Your task to perform on an android device: turn pop-ups off in chrome Image 0: 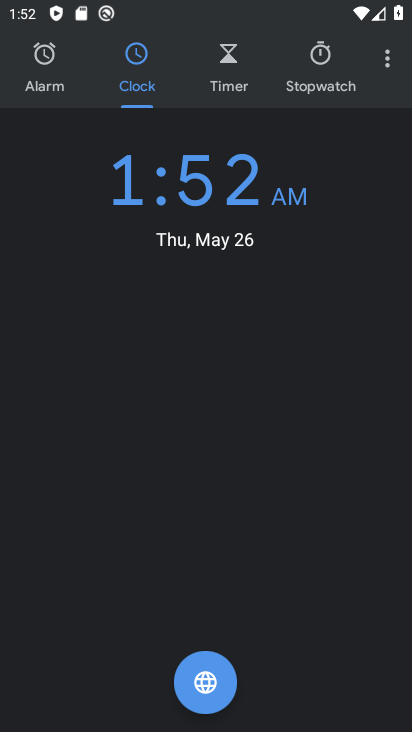
Step 0: press home button
Your task to perform on an android device: turn pop-ups off in chrome Image 1: 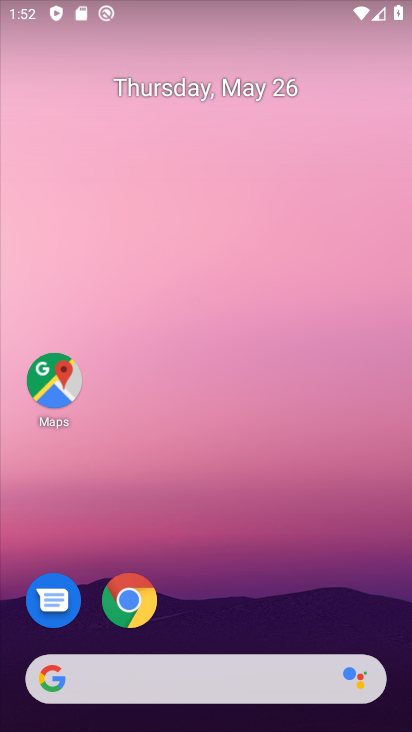
Step 1: drag from (280, 559) to (257, 83)
Your task to perform on an android device: turn pop-ups off in chrome Image 2: 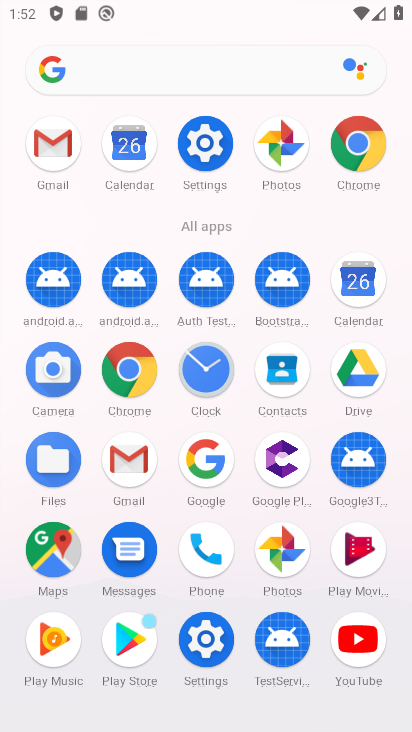
Step 2: drag from (9, 531) to (4, 225)
Your task to perform on an android device: turn pop-ups off in chrome Image 3: 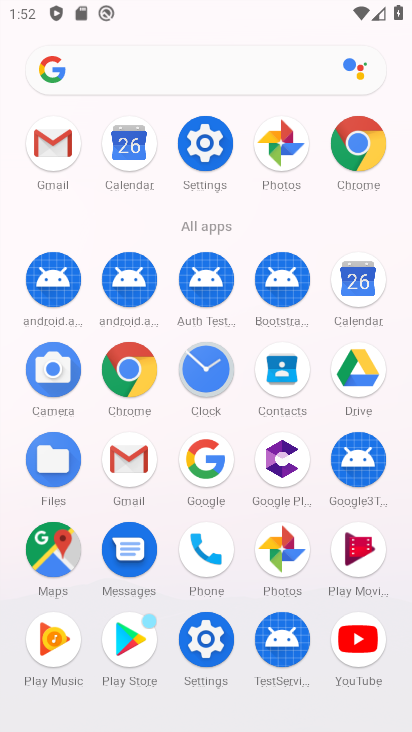
Step 3: click (131, 368)
Your task to perform on an android device: turn pop-ups off in chrome Image 4: 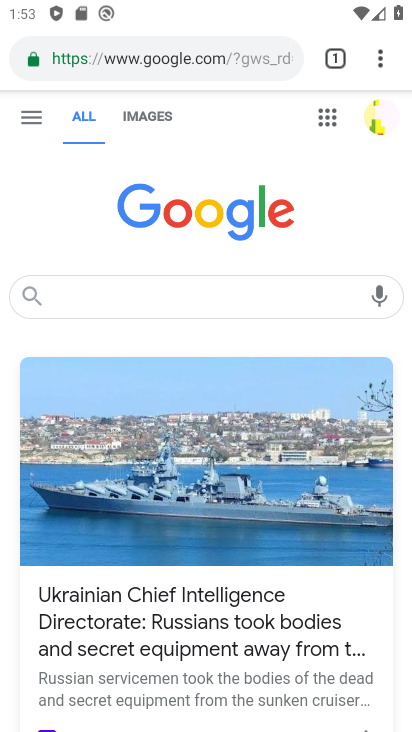
Step 4: drag from (381, 59) to (168, 648)
Your task to perform on an android device: turn pop-ups off in chrome Image 5: 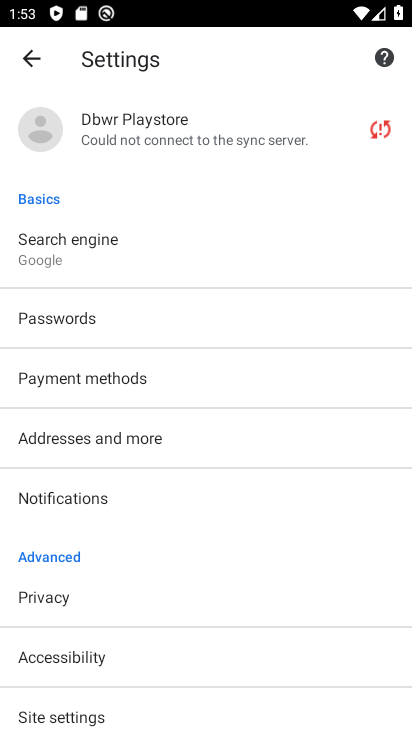
Step 5: drag from (221, 565) to (236, 205)
Your task to perform on an android device: turn pop-ups off in chrome Image 6: 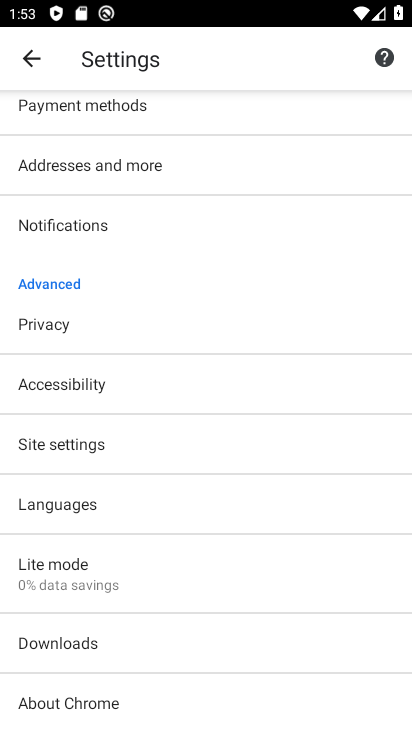
Step 6: click (121, 446)
Your task to perform on an android device: turn pop-ups off in chrome Image 7: 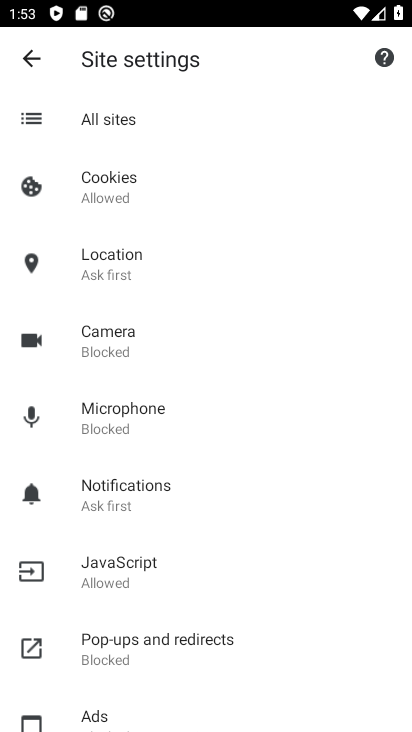
Step 7: click (137, 639)
Your task to perform on an android device: turn pop-ups off in chrome Image 8: 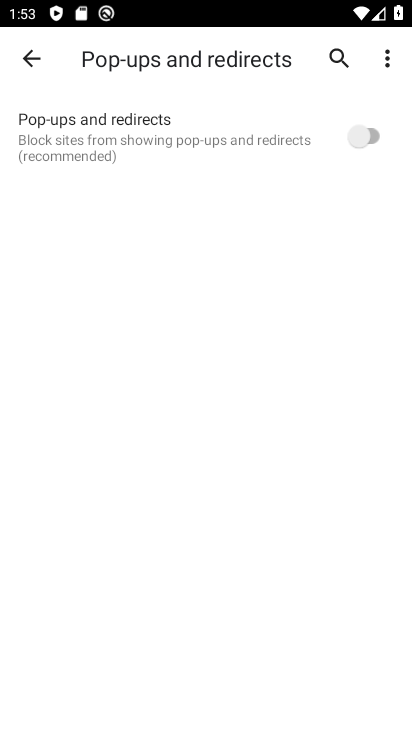
Step 8: task complete